Your task to perform on an android device: turn off location Image 0: 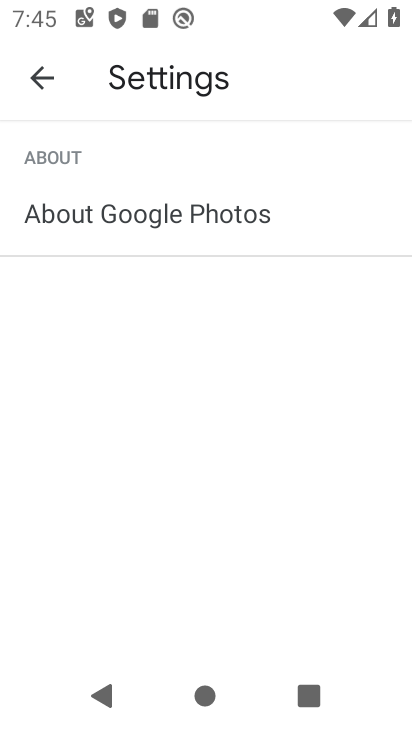
Step 0: press back button
Your task to perform on an android device: turn off location Image 1: 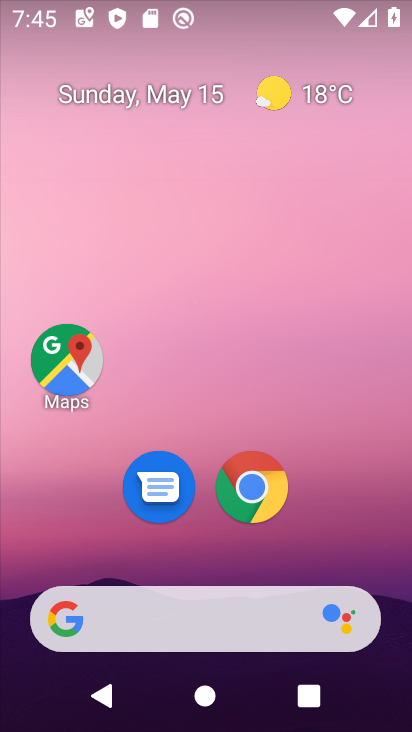
Step 1: drag from (364, 492) to (280, 123)
Your task to perform on an android device: turn off location Image 2: 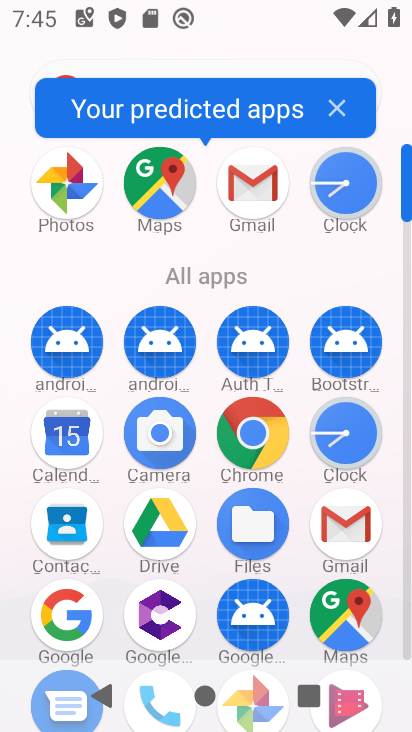
Step 2: drag from (407, 144) to (393, 93)
Your task to perform on an android device: turn off location Image 3: 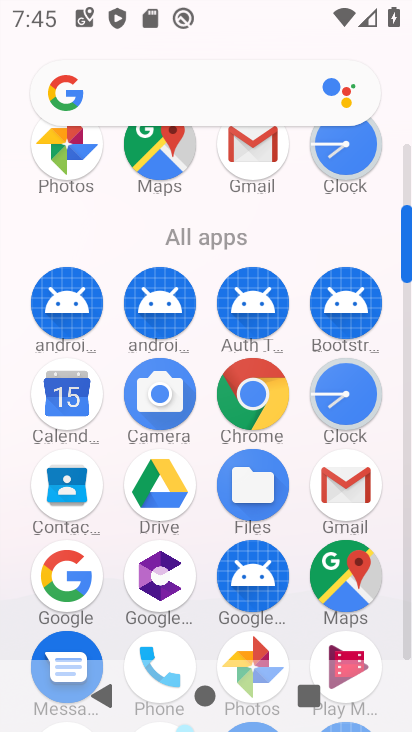
Step 3: drag from (406, 203) to (400, 131)
Your task to perform on an android device: turn off location Image 4: 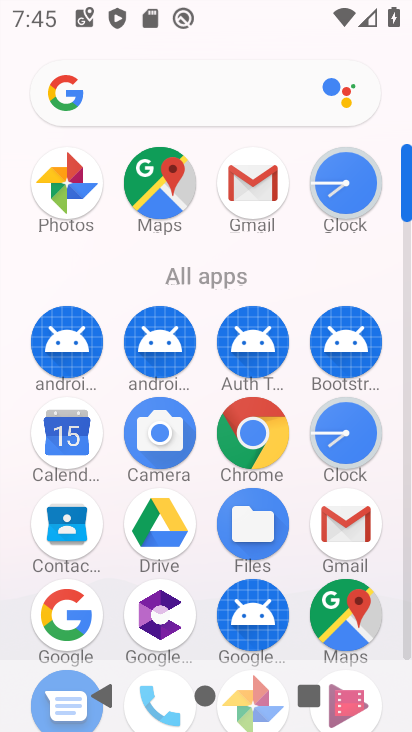
Step 4: click (406, 116)
Your task to perform on an android device: turn off location Image 5: 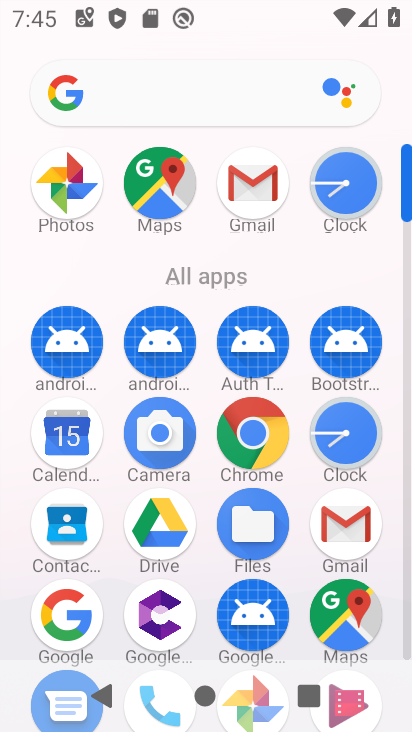
Step 5: drag from (409, 156) to (396, 76)
Your task to perform on an android device: turn off location Image 6: 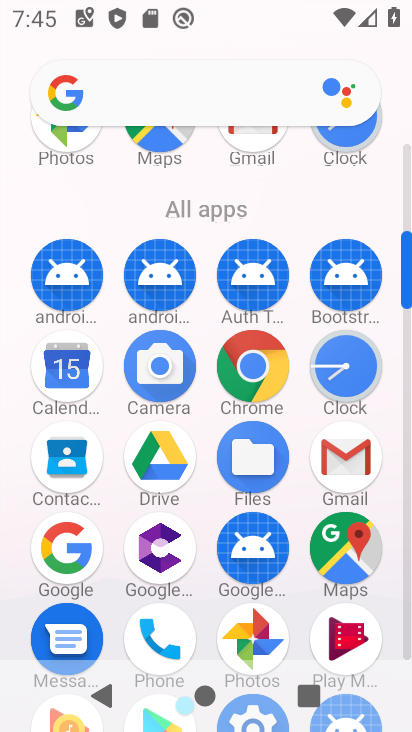
Step 6: click (255, 704)
Your task to perform on an android device: turn off location Image 7: 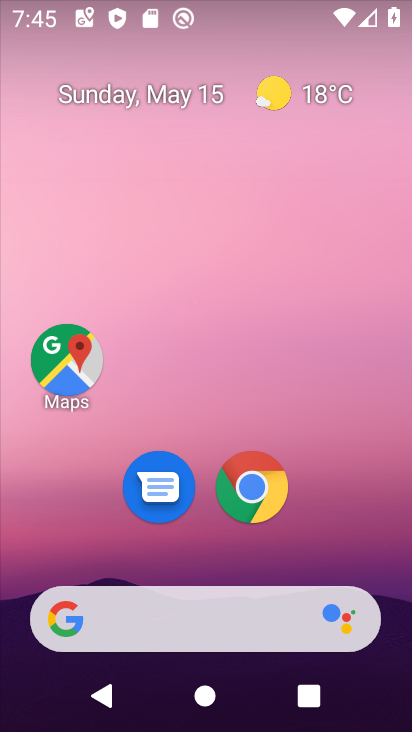
Step 7: drag from (399, 640) to (361, 298)
Your task to perform on an android device: turn off location Image 8: 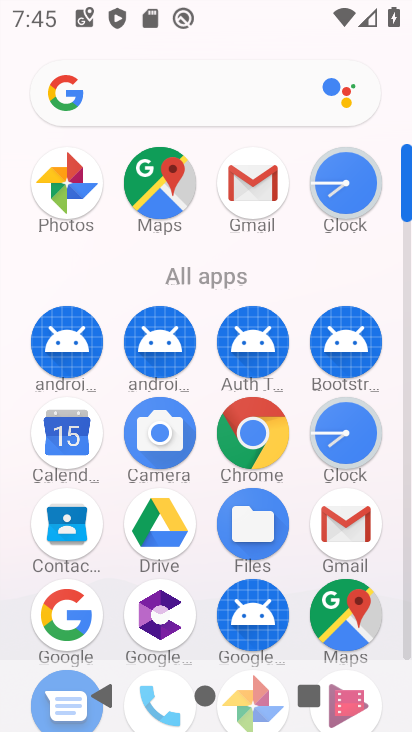
Step 8: drag from (410, 153) to (404, 72)
Your task to perform on an android device: turn off location Image 9: 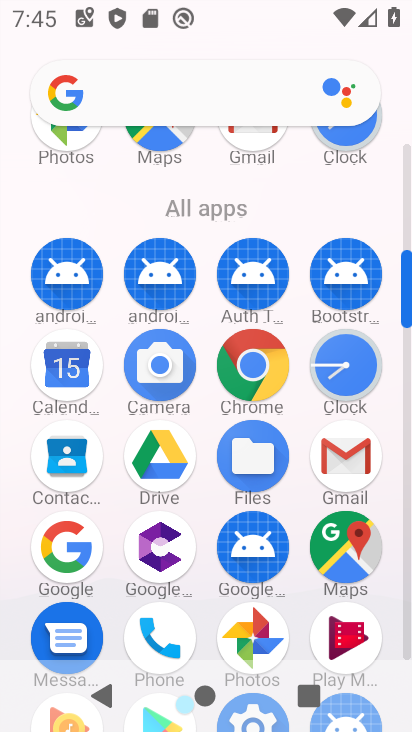
Step 9: drag from (407, 256) to (406, 215)
Your task to perform on an android device: turn off location Image 10: 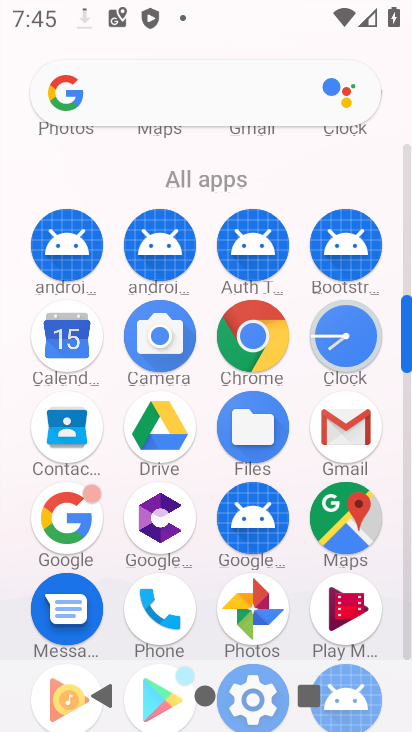
Step 10: drag from (403, 301) to (400, 257)
Your task to perform on an android device: turn off location Image 11: 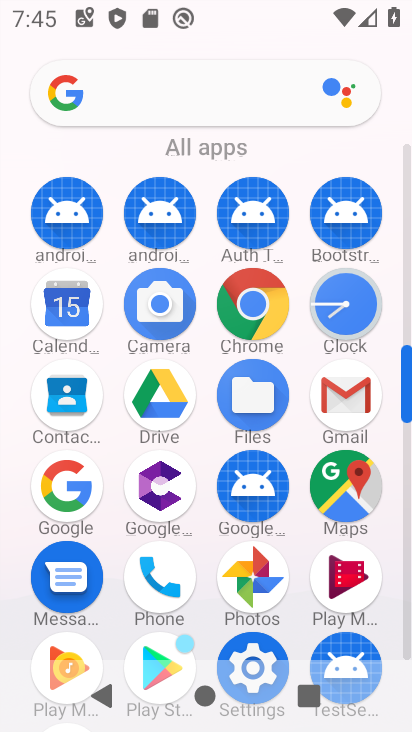
Step 11: click (265, 639)
Your task to perform on an android device: turn off location Image 12: 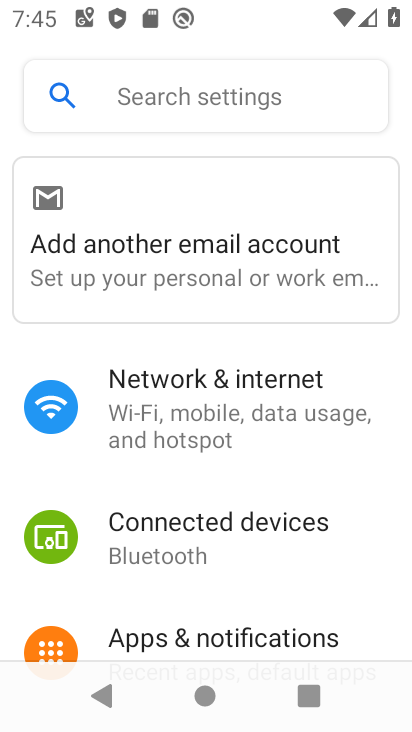
Step 12: drag from (378, 612) to (328, 353)
Your task to perform on an android device: turn off location Image 13: 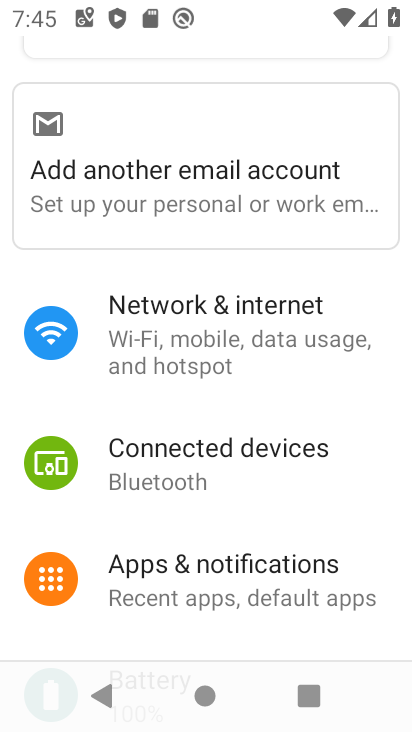
Step 13: drag from (398, 591) to (348, 383)
Your task to perform on an android device: turn off location Image 14: 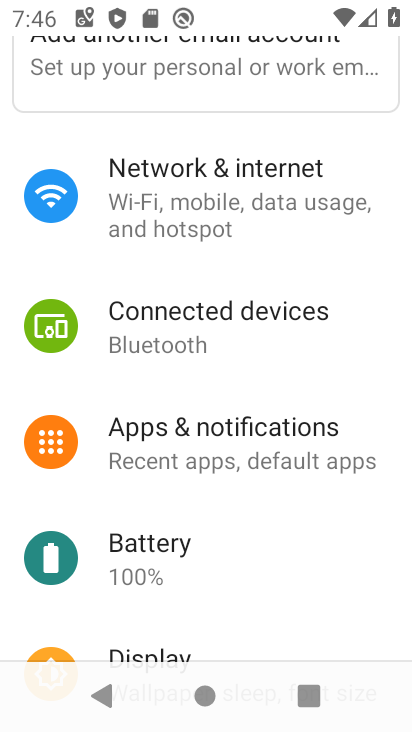
Step 14: drag from (363, 584) to (340, 441)
Your task to perform on an android device: turn off location Image 15: 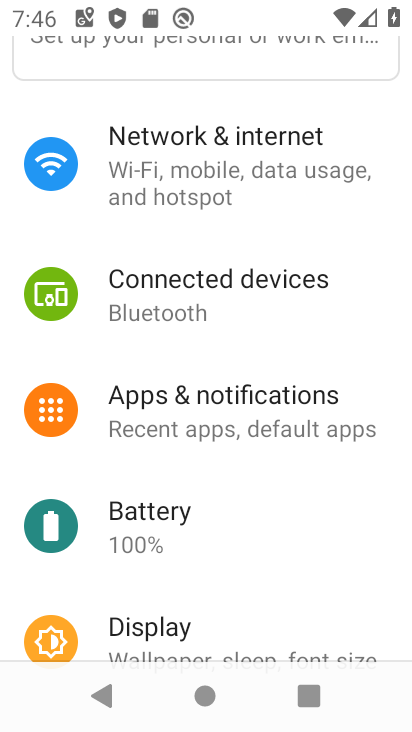
Step 15: drag from (356, 626) to (328, 406)
Your task to perform on an android device: turn off location Image 16: 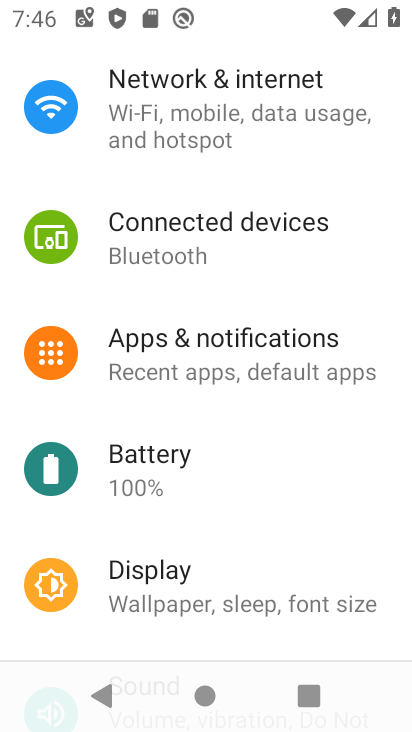
Step 16: drag from (347, 629) to (339, 499)
Your task to perform on an android device: turn off location Image 17: 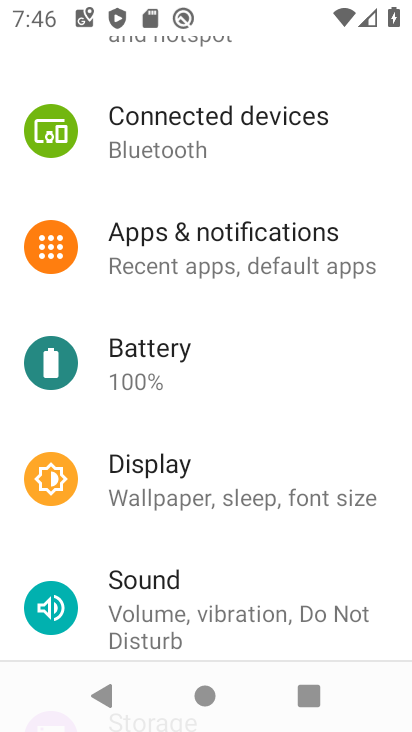
Step 17: drag from (367, 599) to (330, 362)
Your task to perform on an android device: turn off location Image 18: 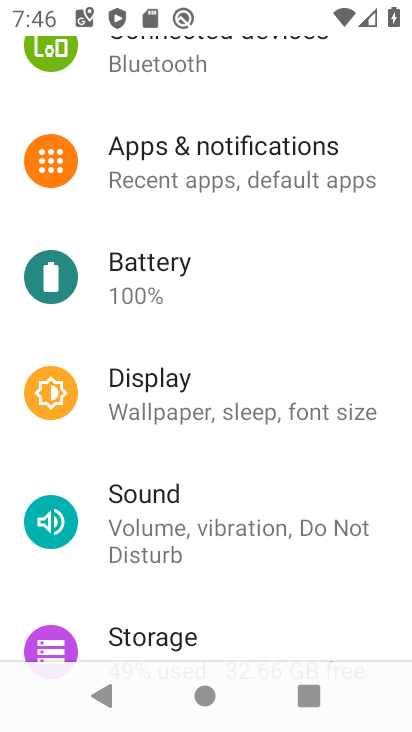
Step 18: drag from (338, 624) to (328, 385)
Your task to perform on an android device: turn off location Image 19: 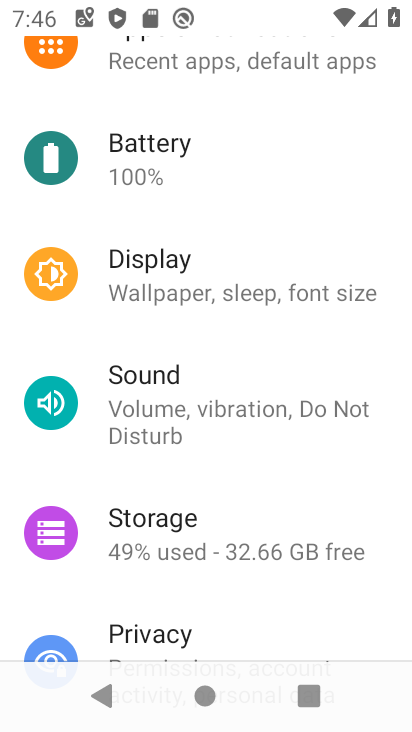
Step 19: drag from (340, 629) to (336, 380)
Your task to perform on an android device: turn off location Image 20: 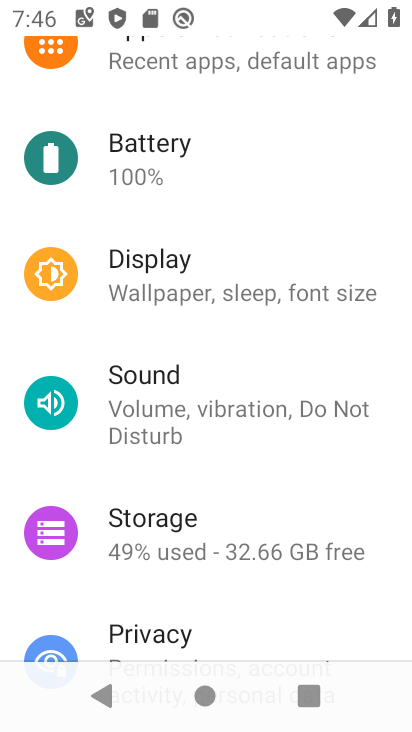
Step 20: drag from (361, 621) to (309, 335)
Your task to perform on an android device: turn off location Image 21: 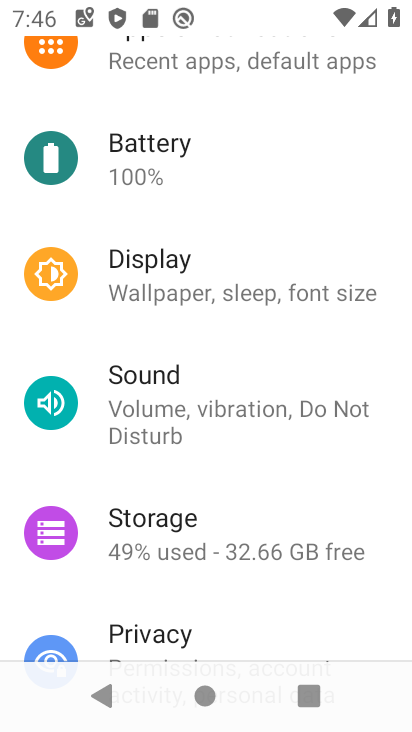
Step 21: drag from (397, 631) to (350, 241)
Your task to perform on an android device: turn off location Image 22: 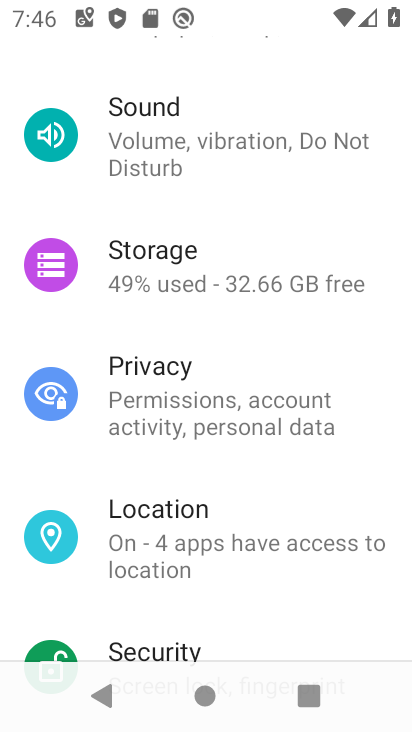
Step 22: click (101, 537)
Your task to perform on an android device: turn off location Image 23: 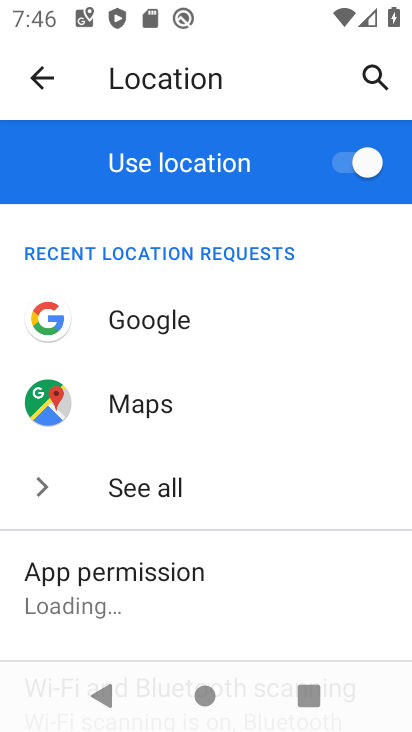
Step 23: click (346, 171)
Your task to perform on an android device: turn off location Image 24: 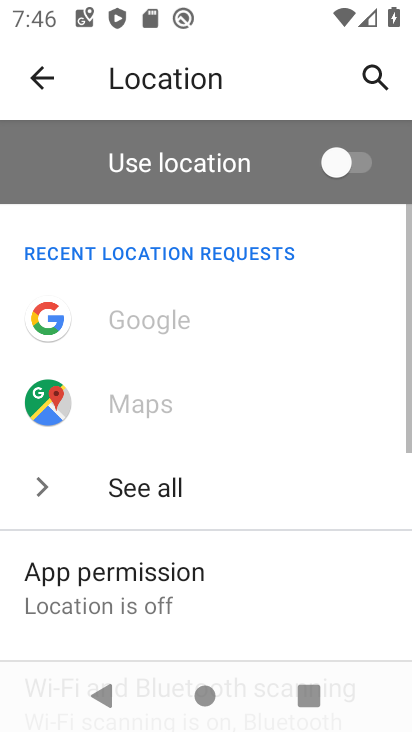
Step 24: task complete